Your task to perform on an android device: Is it going to rain this weekend? Image 0: 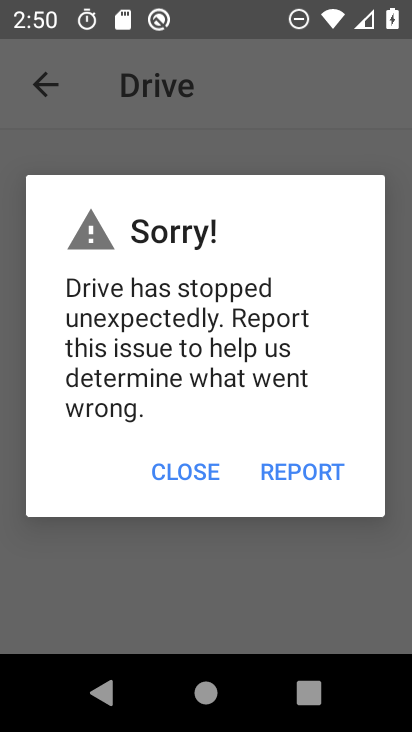
Step 0: press home button
Your task to perform on an android device: Is it going to rain this weekend? Image 1: 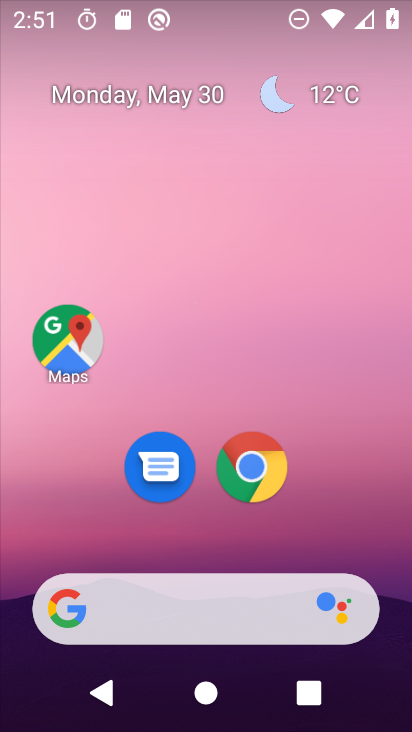
Step 1: click (349, 92)
Your task to perform on an android device: Is it going to rain this weekend? Image 2: 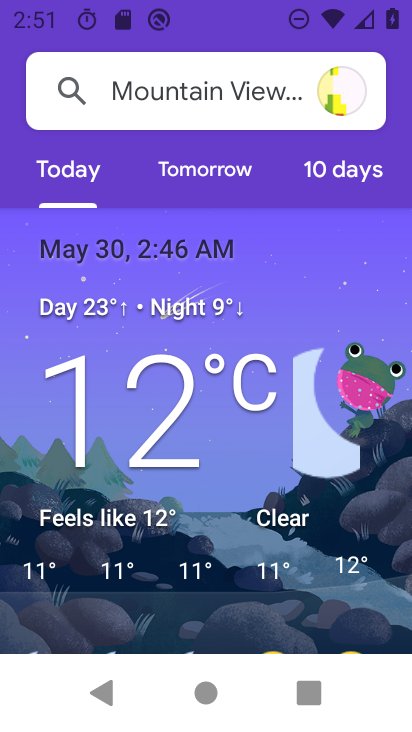
Step 2: click (321, 165)
Your task to perform on an android device: Is it going to rain this weekend? Image 3: 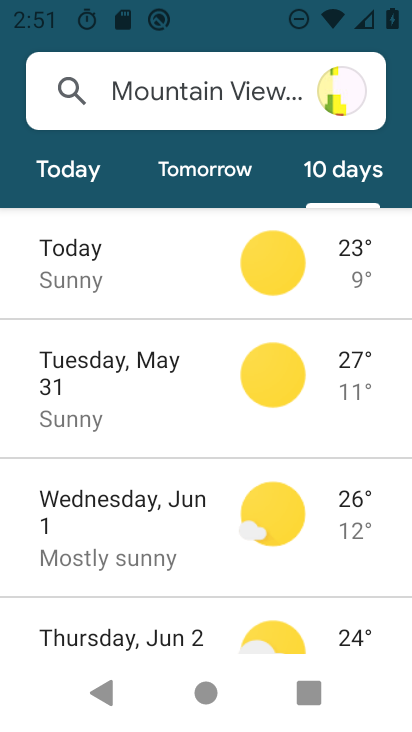
Step 3: task complete